Your task to perform on an android device: turn on javascript in the chrome app Image 0: 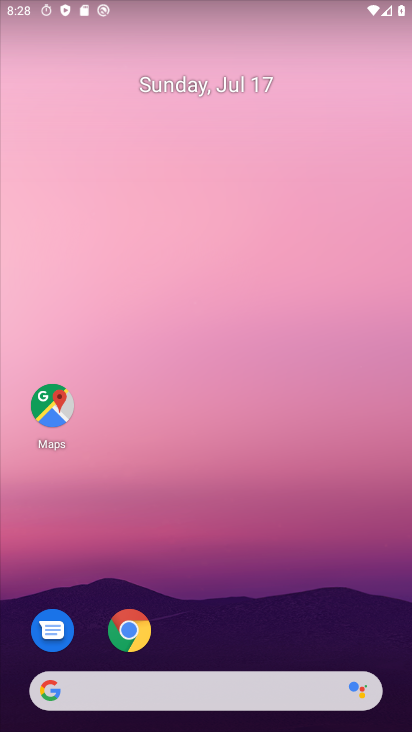
Step 0: click (131, 623)
Your task to perform on an android device: turn on javascript in the chrome app Image 1: 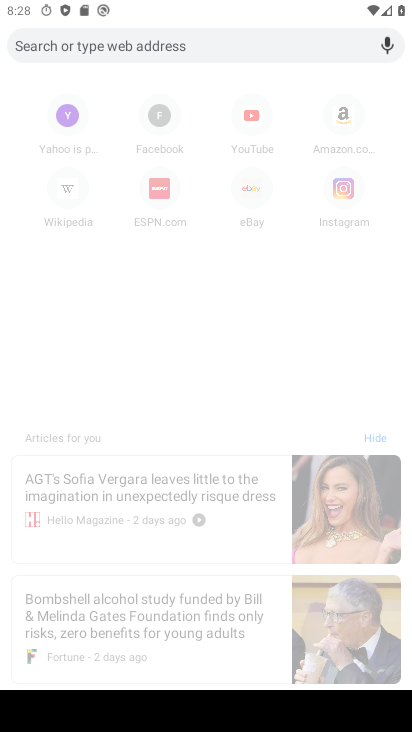
Step 1: click (62, 47)
Your task to perform on an android device: turn on javascript in the chrome app Image 2: 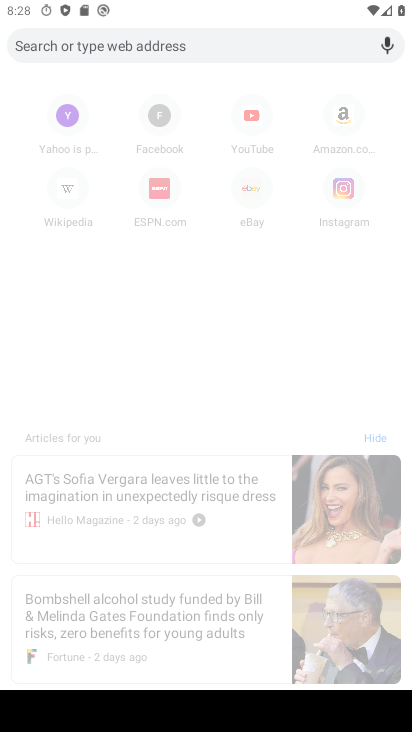
Step 2: click (74, 260)
Your task to perform on an android device: turn on javascript in the chrome app Image 3: 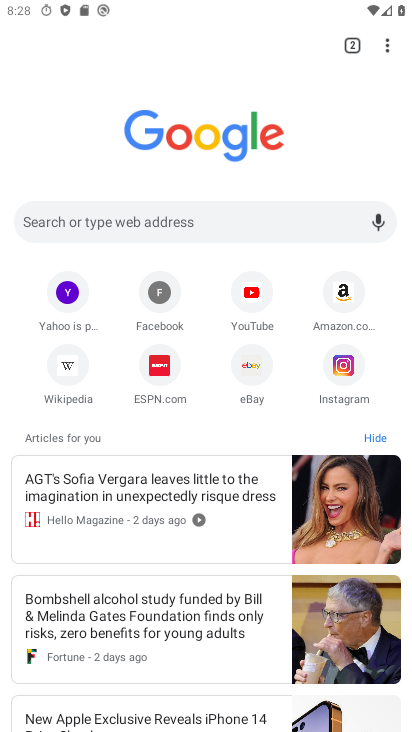
Step 3: click (389, 45)
Your task to perform on an android device: turn on javascript in the chrome app Image 4: 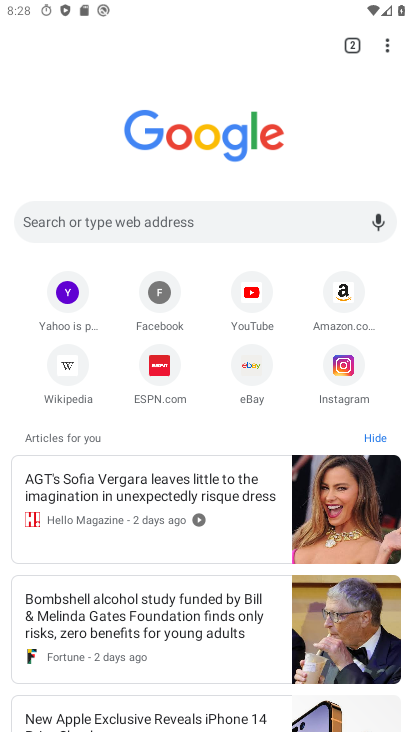
Step 4: click (385, 34)
Your task to perform on an android device: turn on javascript in the chrome app Image 5: 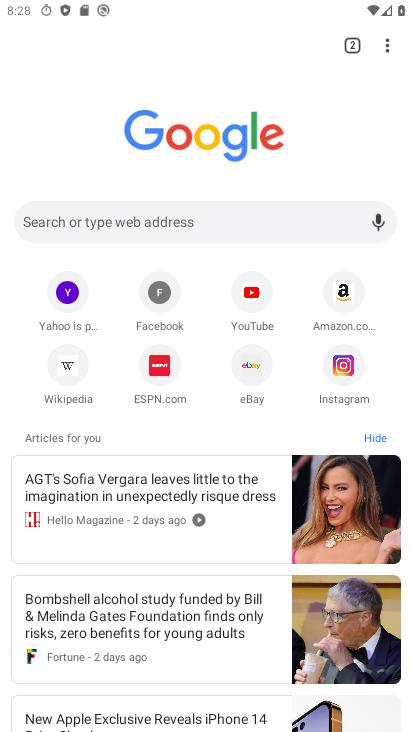
Step 5: click (391, 37)
Your task to perform on an android device: turn on javascript in the chrome app Image 6: 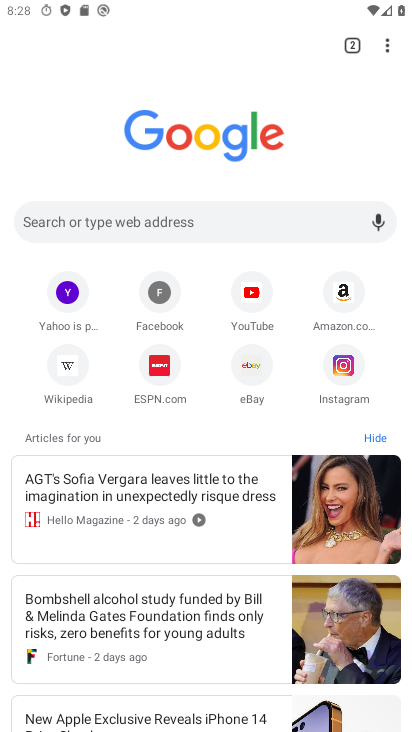
Step 6: task complete